Your task to perform on an android device: Add acer predator to the cart on costco Image 0: 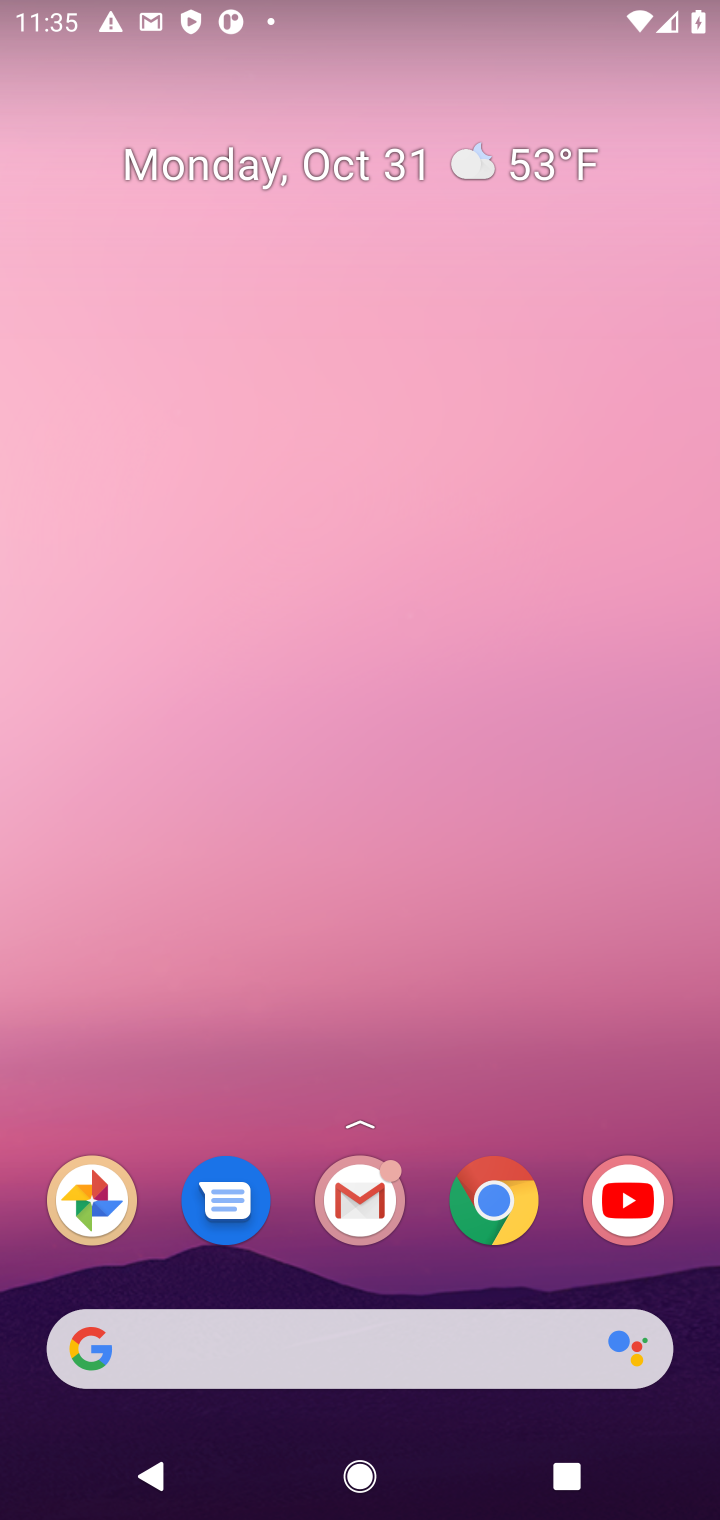
Step 0: click (482, 1217)
Your task to perform on an android device: Add acer predator to the cart on costco Image 1: 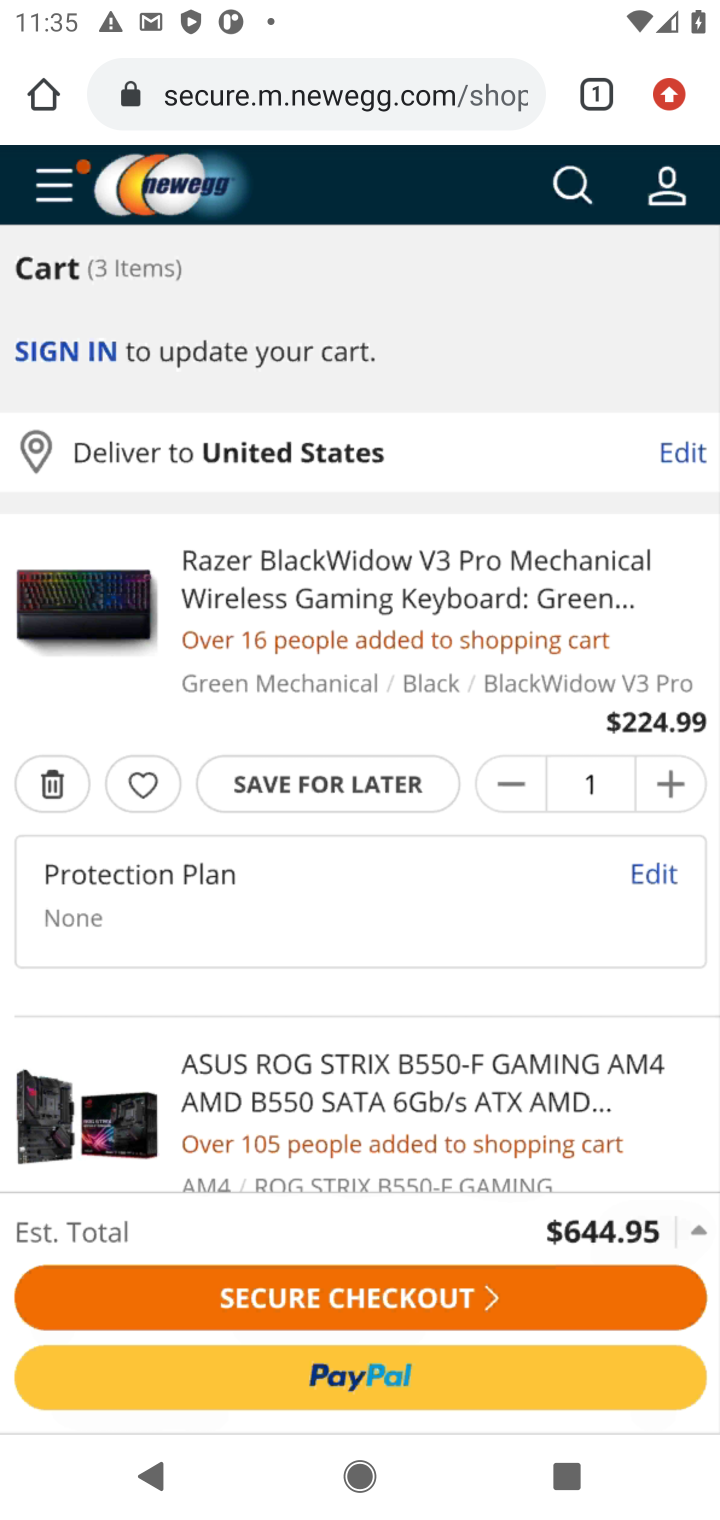
Step 1: click (291, 105)
Your task to perform on an android device: Add acer predator to the cart on costco Image 2: 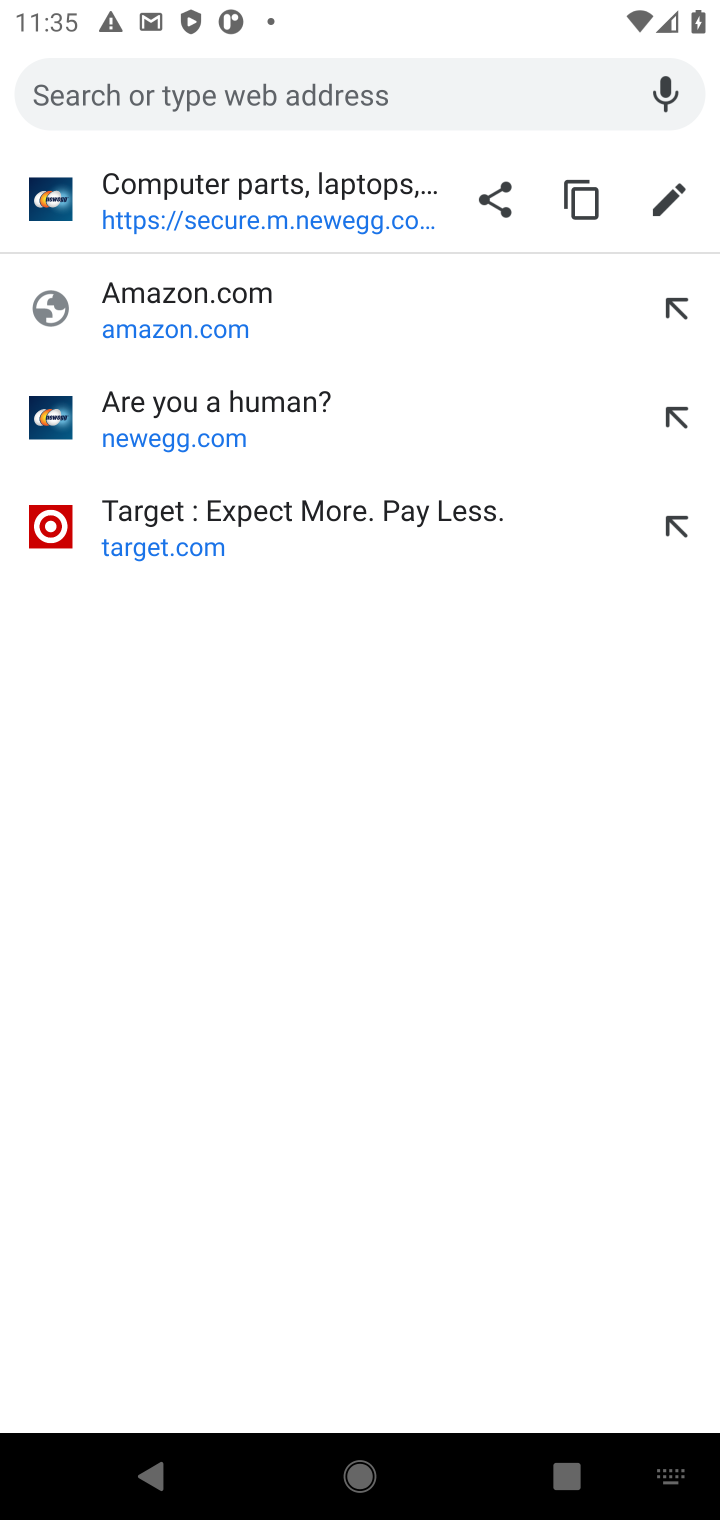
Step 2: type "costco"
Your task to perform on an android device: Add acer predator to the cart on costco Image 3: 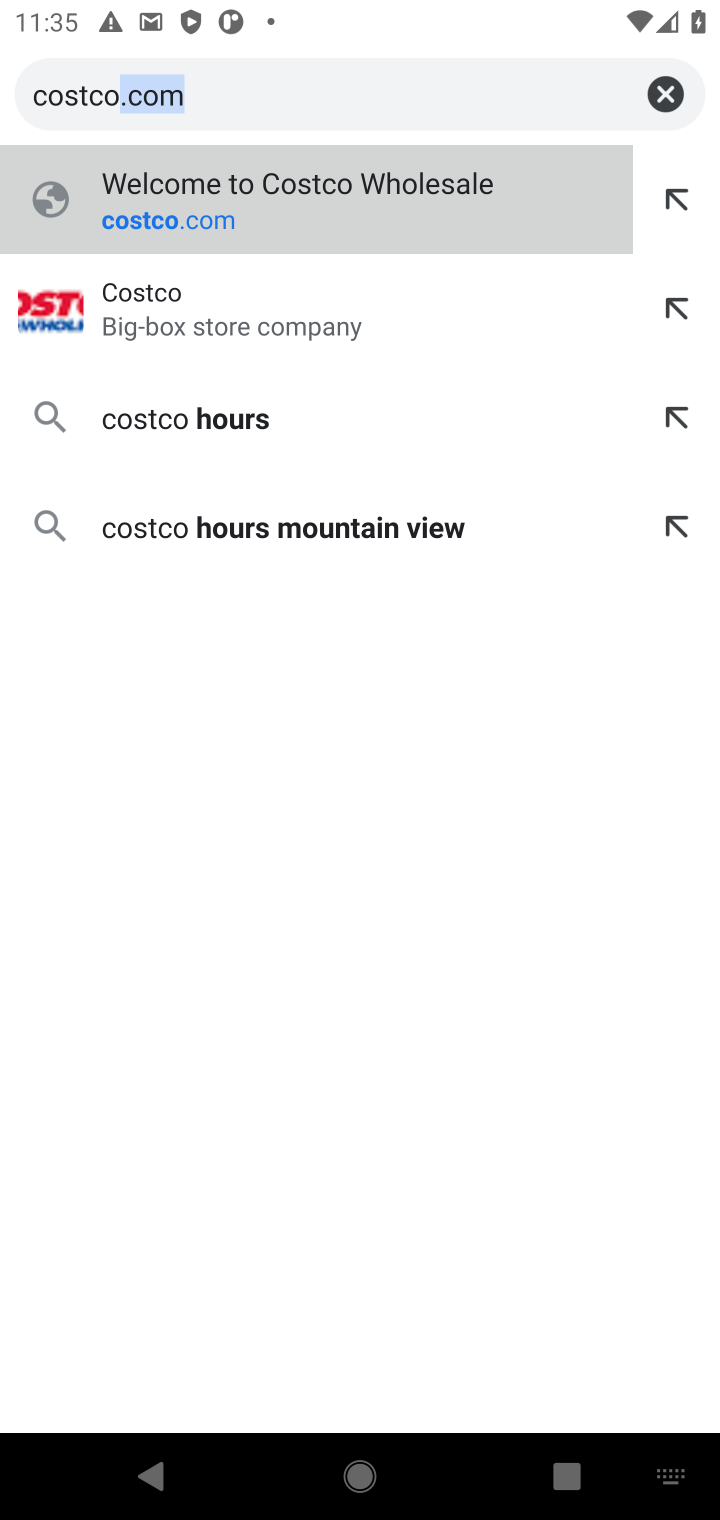
Step 3: click (418, 212)
Your task to perform on an android device: Add acer predator to the cart on costco Image 4: 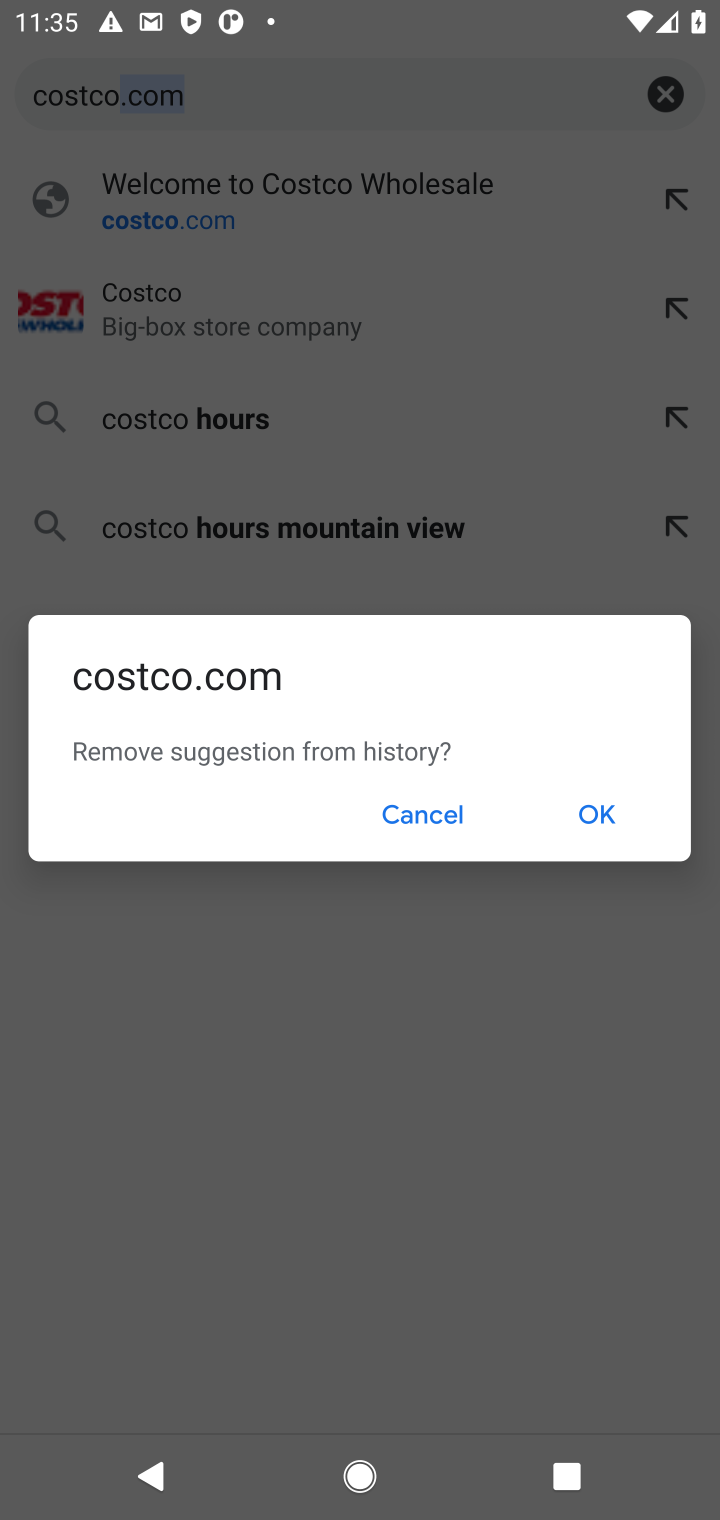
Step 4: click (444, 821)
Your task to perform on an android device: Add acer predator to the cart on costco Image 5: 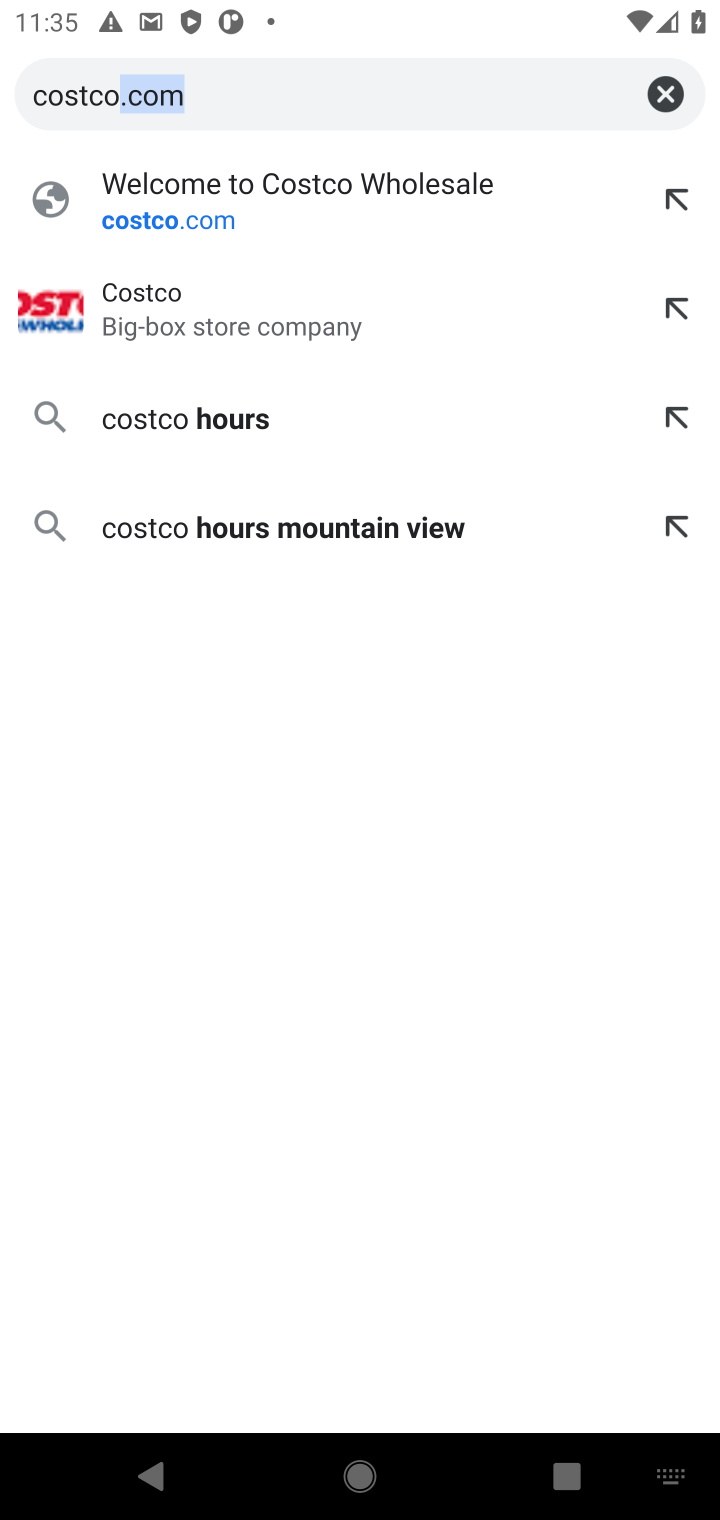
Step 5: click (333, 233)
Your task to perform on an android device: Add acer predator to the cart on costco Image 6: 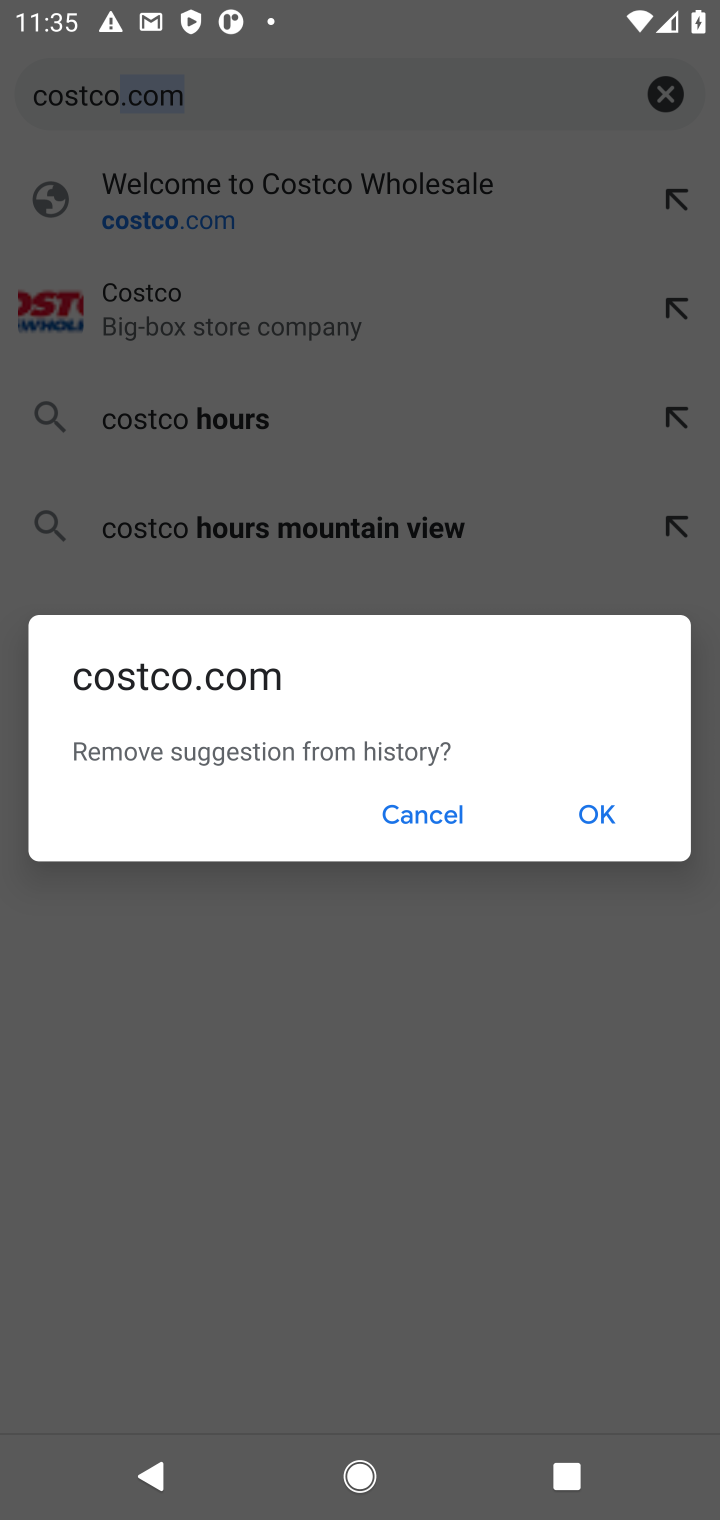
Step 6: click (579, 812)
Your task to perform on an android device: Add acer predator to the cart on costco Image 7: 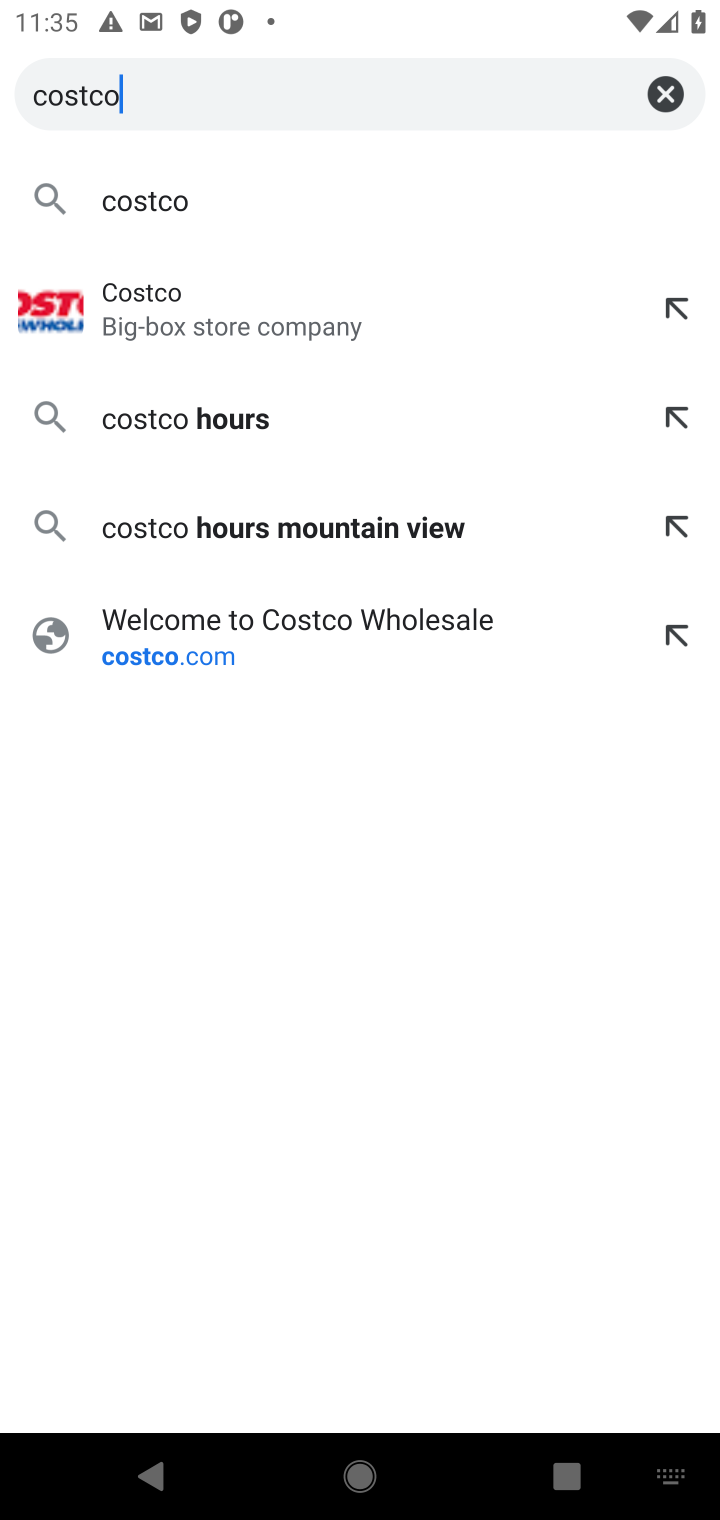
Step 7: click (229, 337)
Your task to perform on an android device: Add acer predator to the cart on costco Image 8: 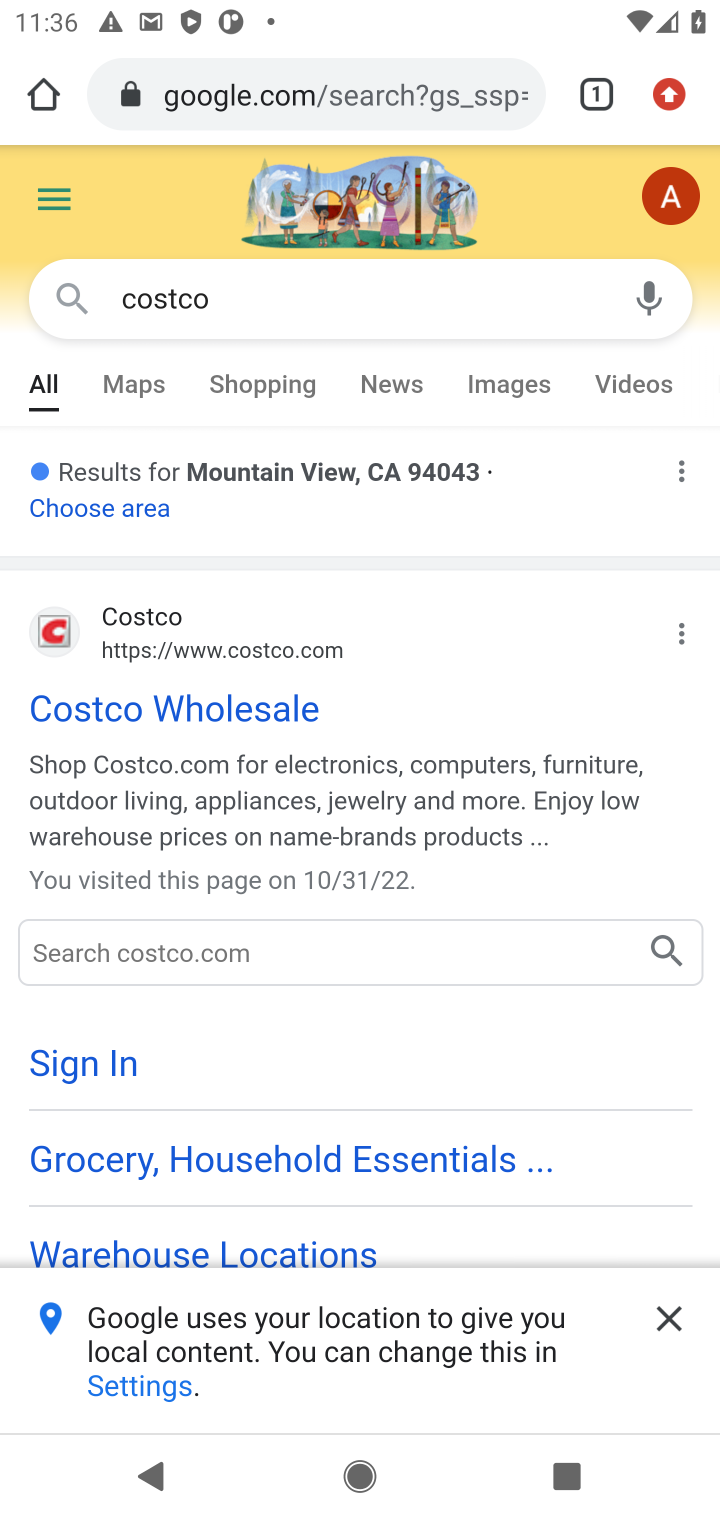
Step 8: click (194, 677)
Your task to perform on an android device: Add acer predator to the cart on costco Image 9: 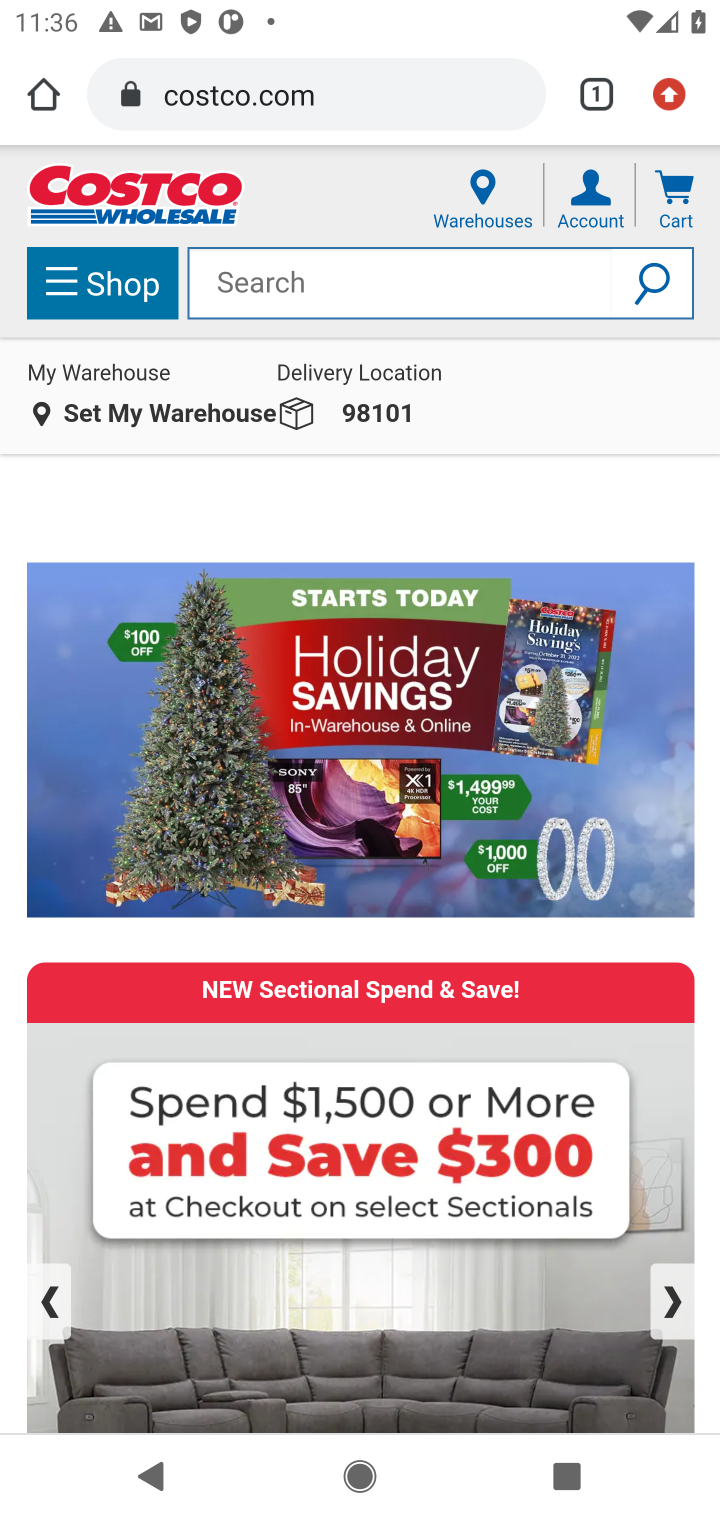
Step 9: click (428, 300)
Your task to perform on an android device: Add acer predator to the cart on costco Image 10: 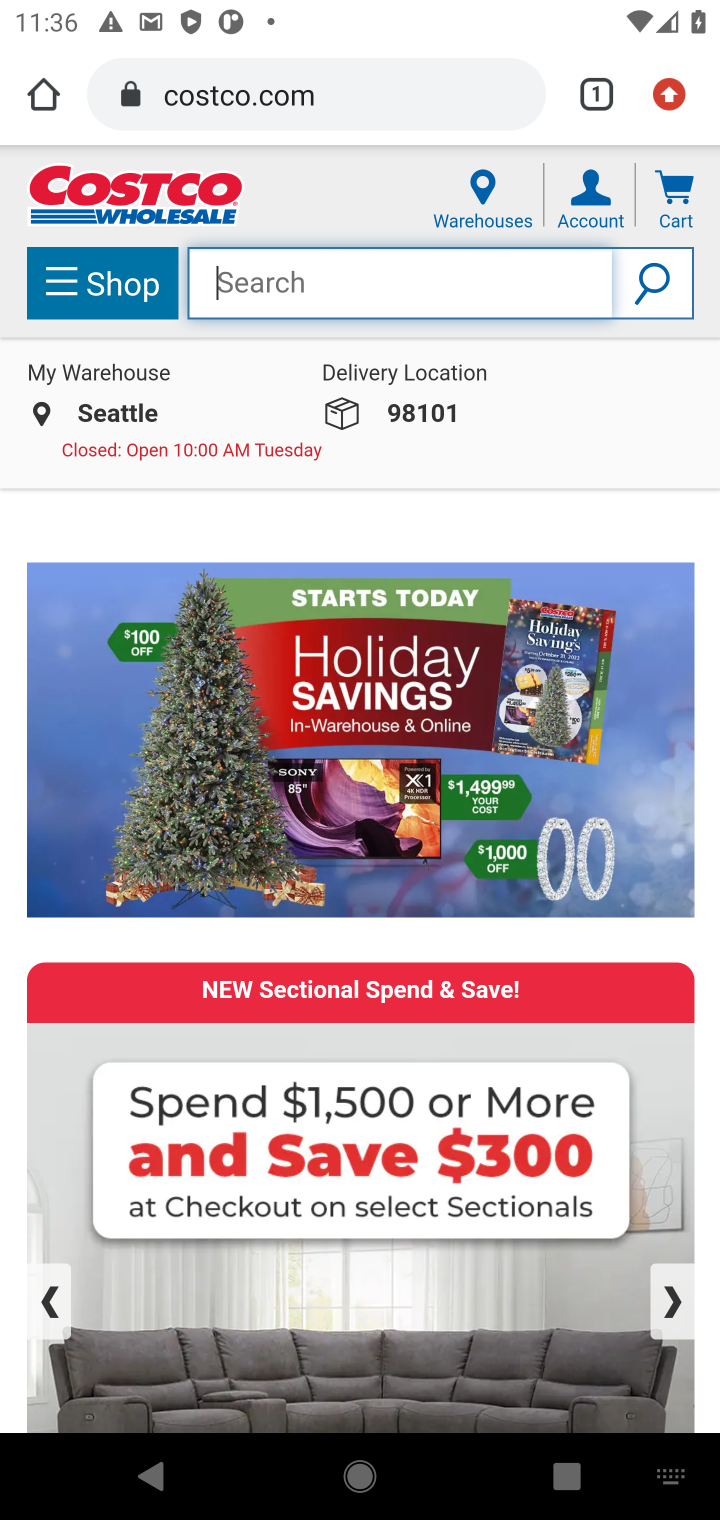
Step 10: type "acer predator"
Your task to perform on an android device: Add acer predator to the cart on costco Image 11: 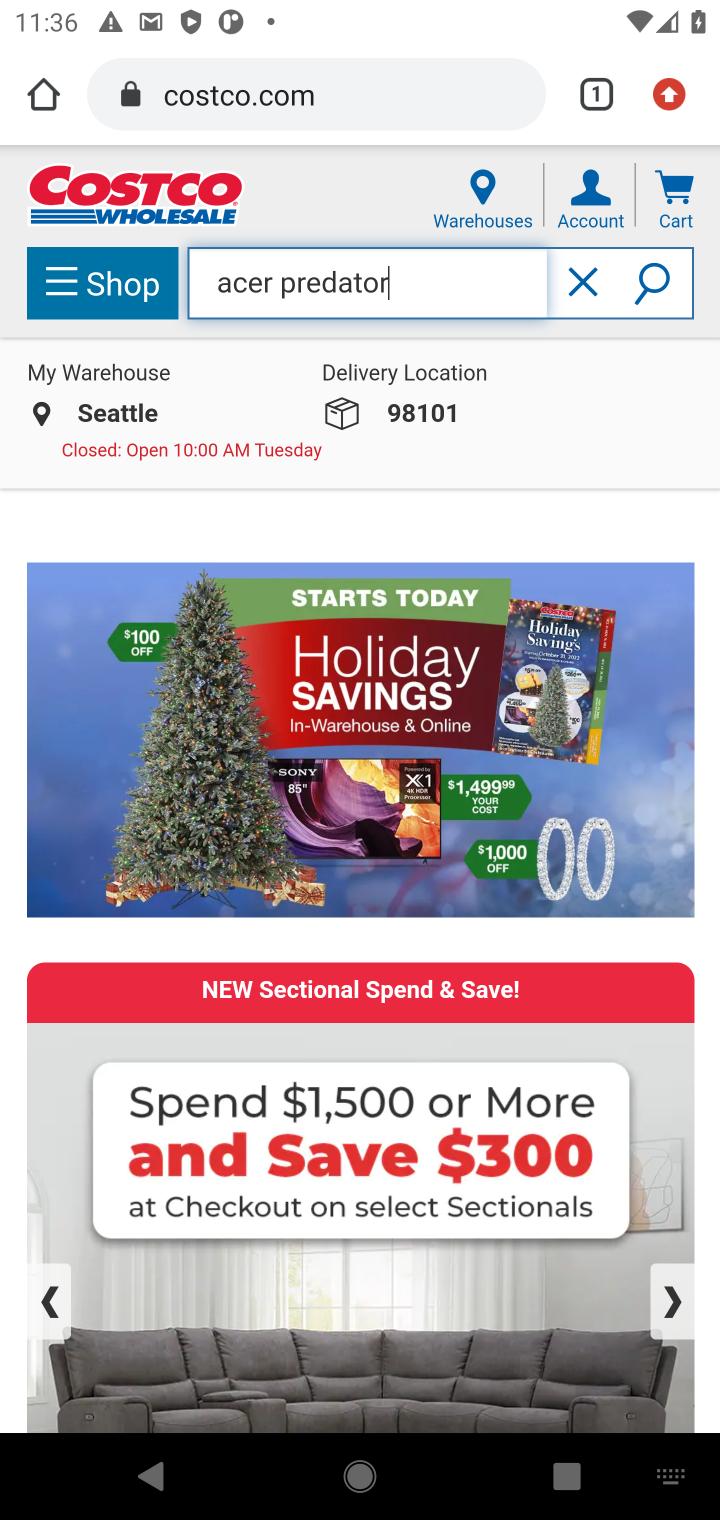
Step 11: type ""
Your task to perform on an android device: Add acer predator to the cart on costco Image 12: 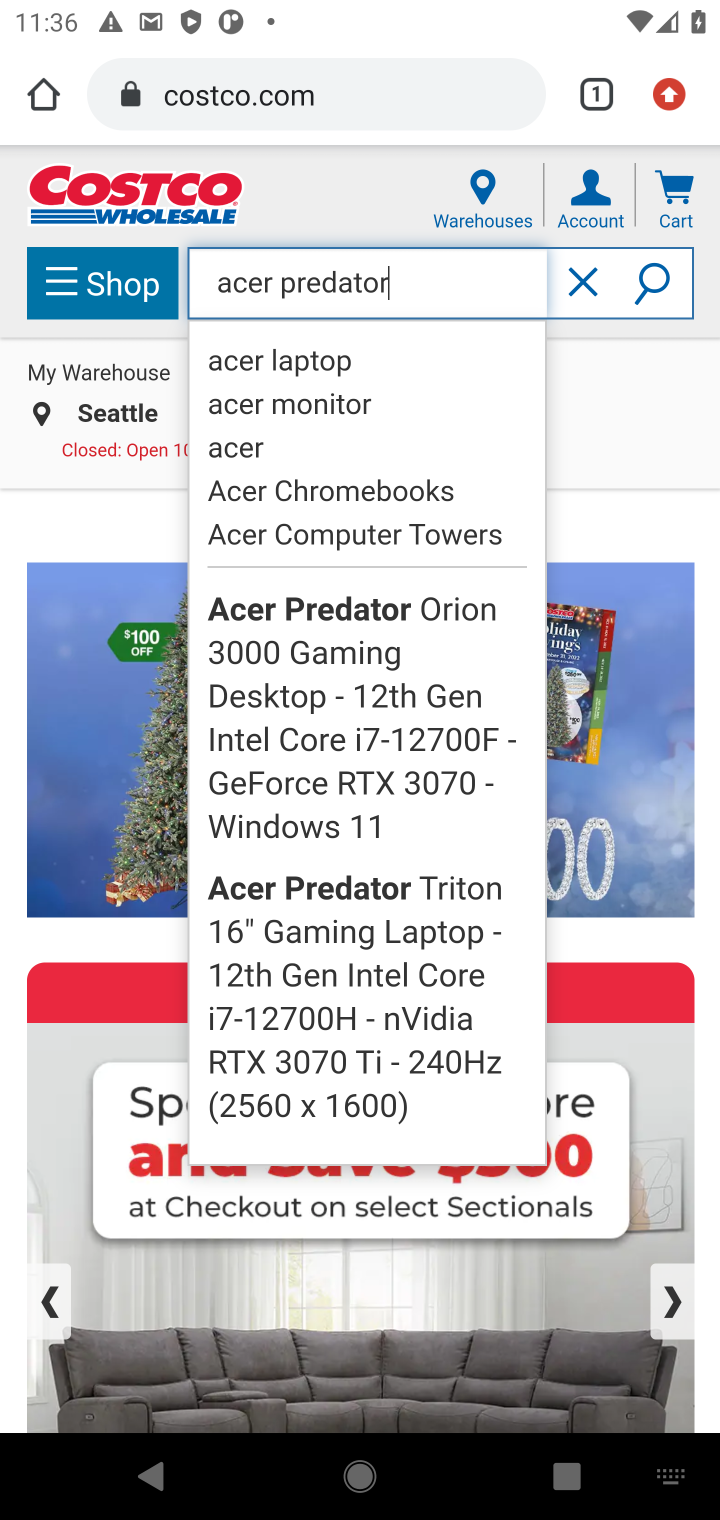
Step 12: press enter
Your task to perform on an android device: Add acer predator to the cart on costco Image 13: 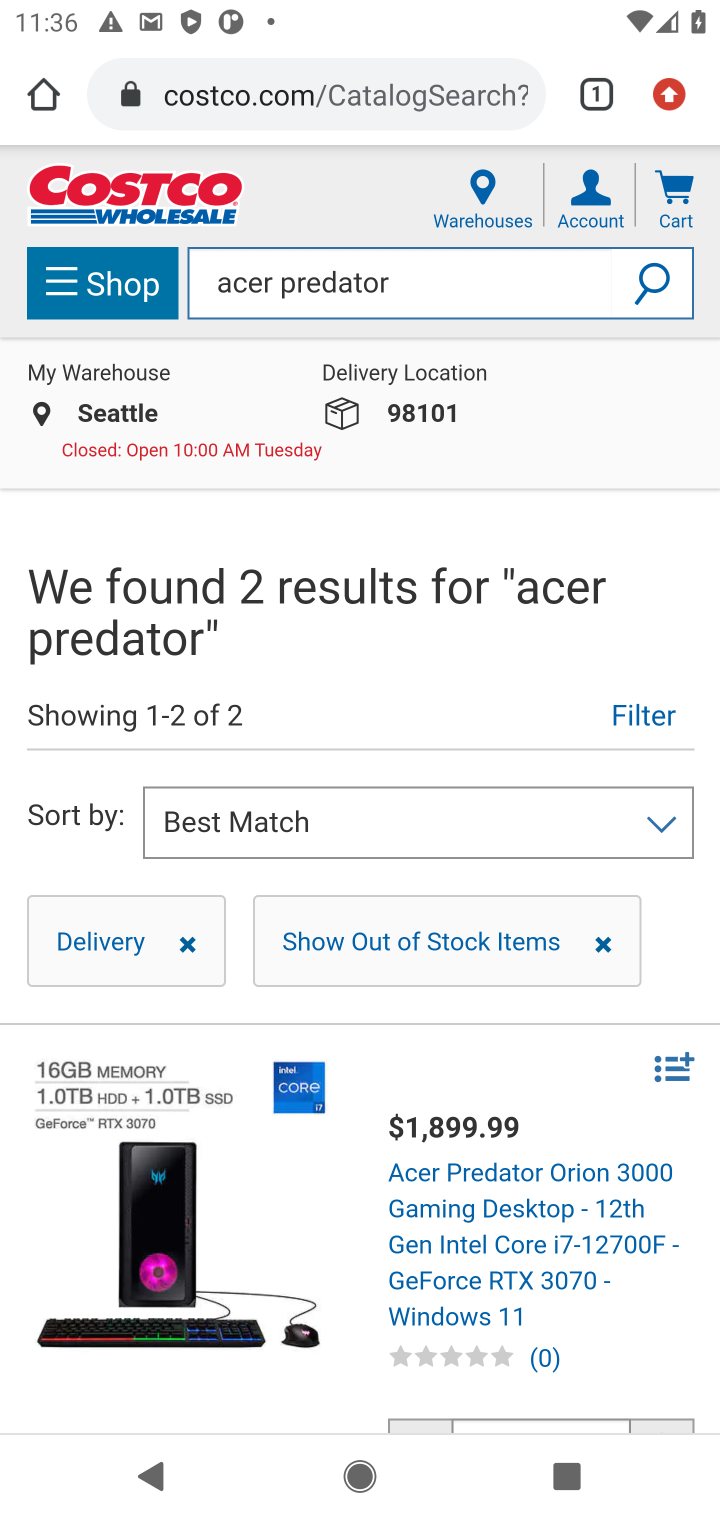
Step 13: click (527, 1180)
Your task to perform on an android device: Add acer predator to the cart on costco Image 14: 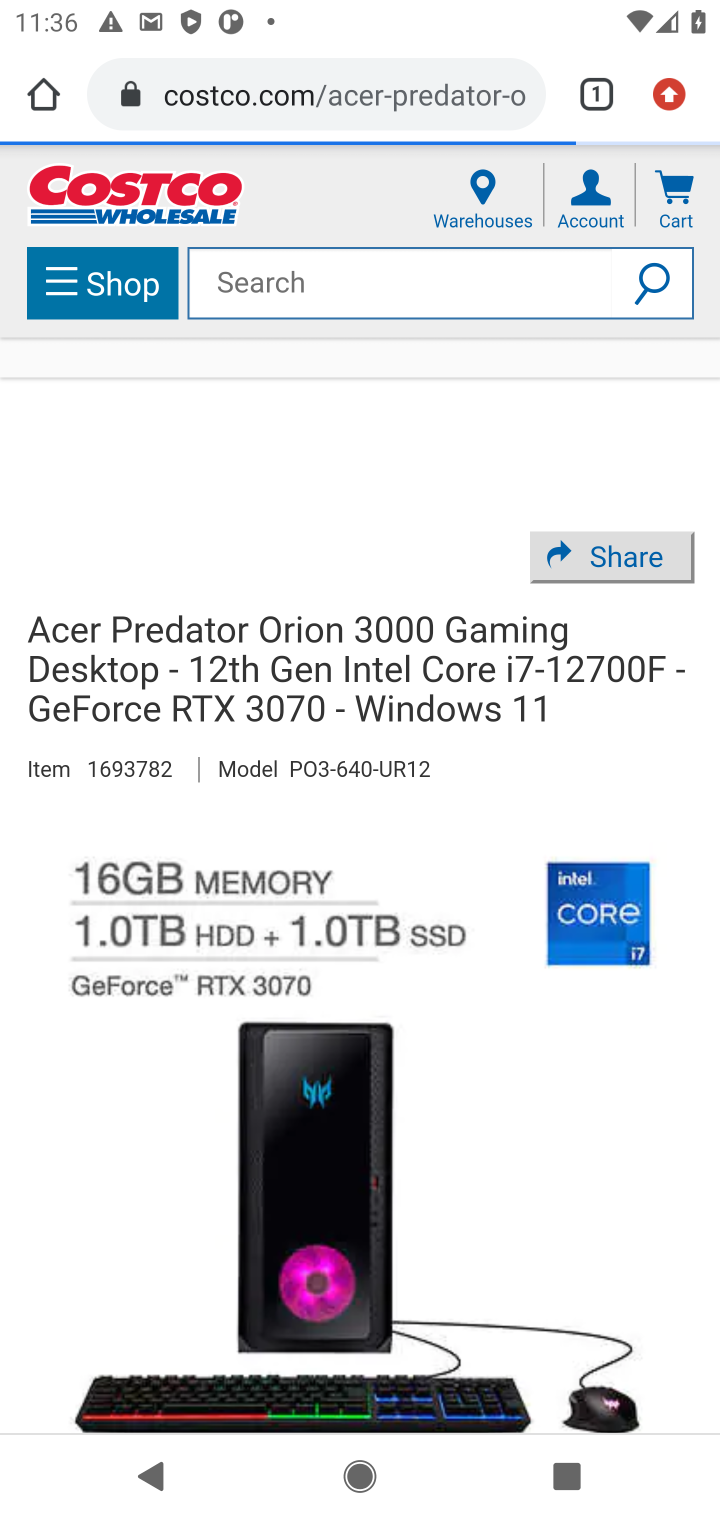
Step 14: drag from (531, 1267) to (555, 458)
Your task to perform on an android device: Add acer predator to the cart on costco Image 15: 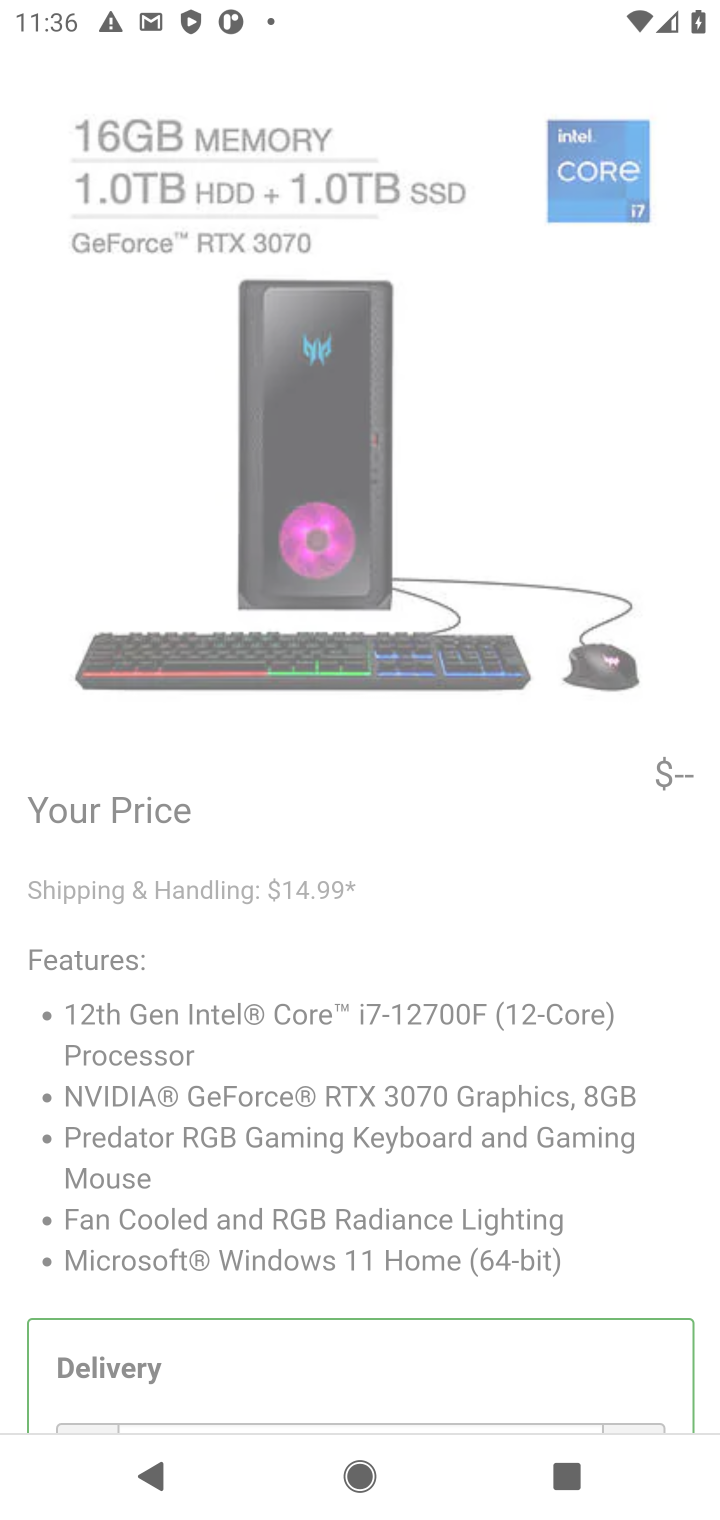
Step 15: drag from (405, 1060) to (487, 381)
Your task to perform on an android device: Add acer predator to the cart on costco Image 16: 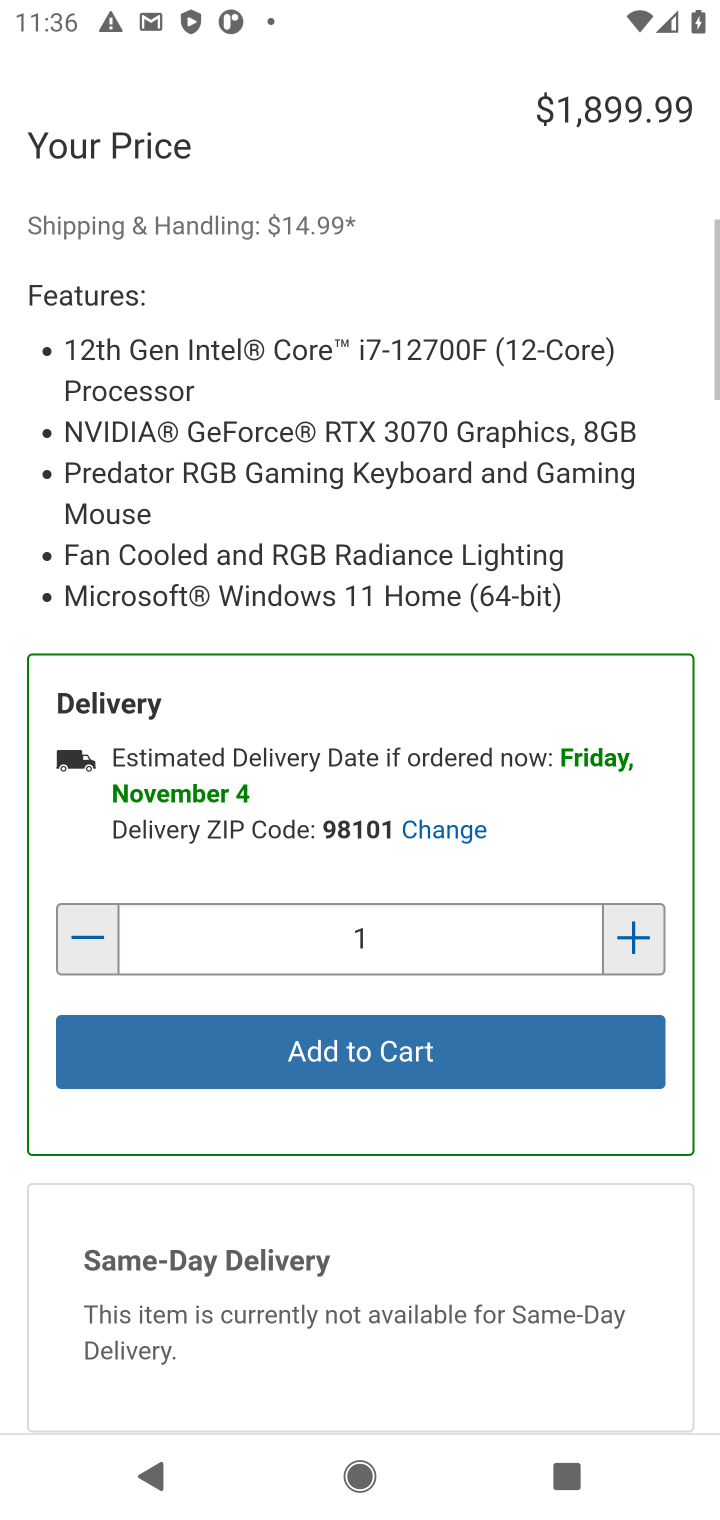
Step 16: click (411, 1179)
Your task to perform on an android device: Add acer predator to the cart on costco Image 17: 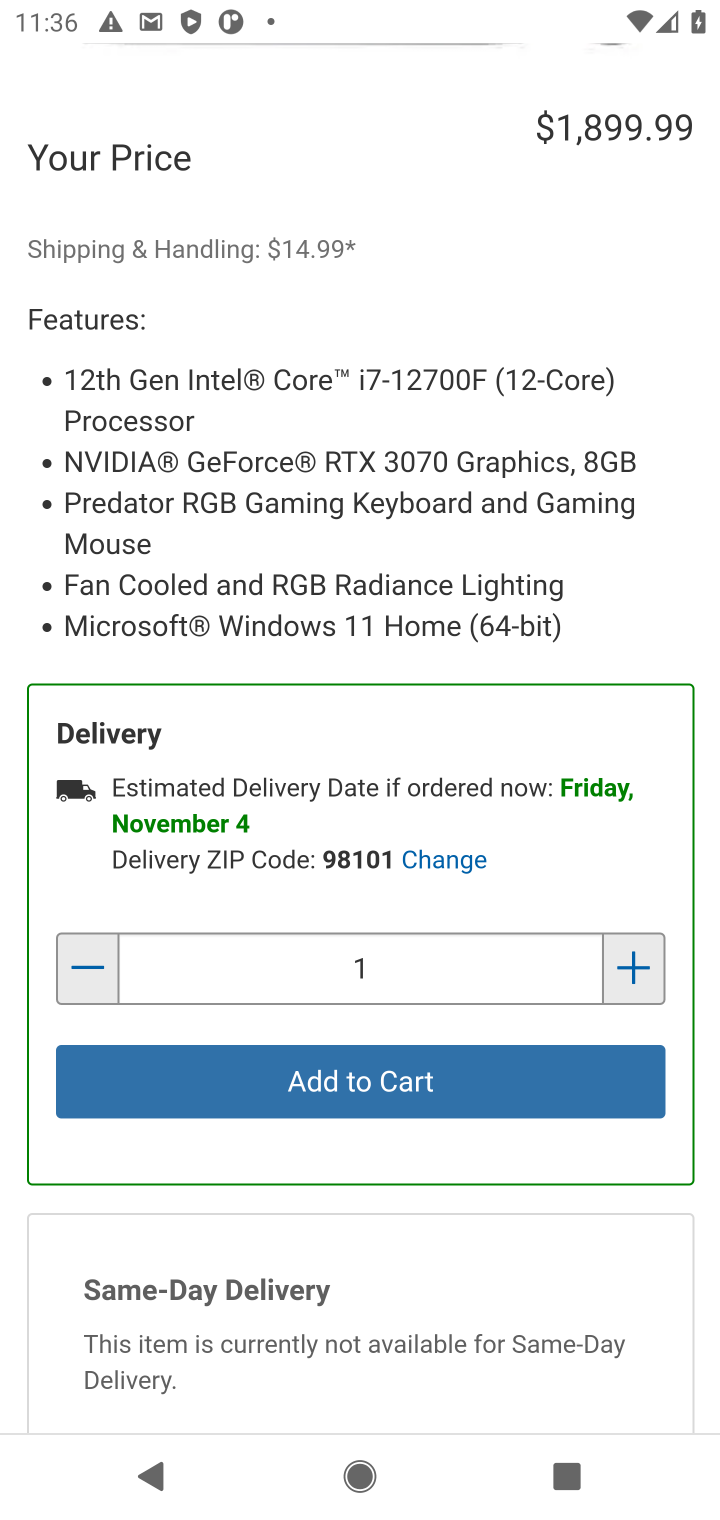
Step 17: click (410, 1031)
Your task to perform on an android device: Add acer predator to the cart on costco Image 18: 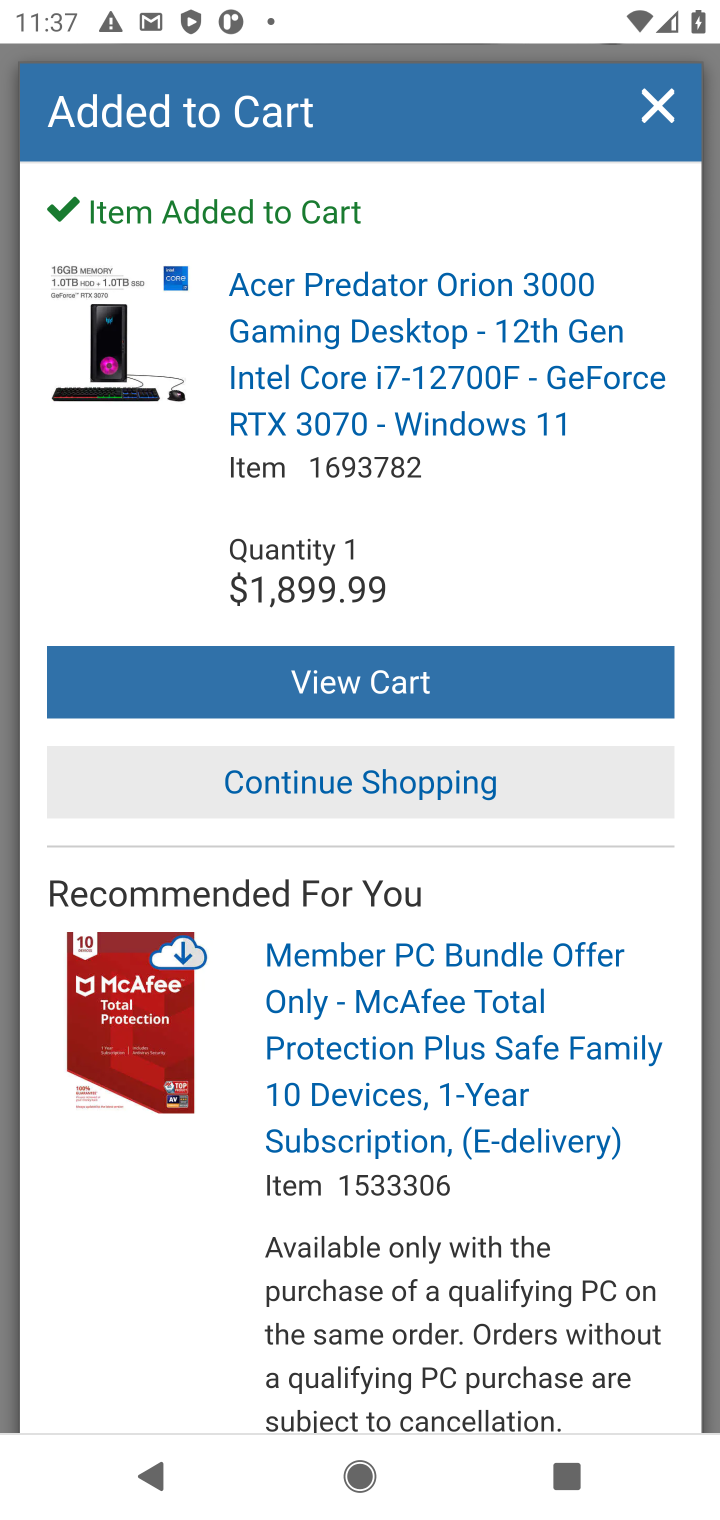
Step 18: click (438, 687)
Your task to perform on an android device: Add acer predator to the cart on costco Image 19: 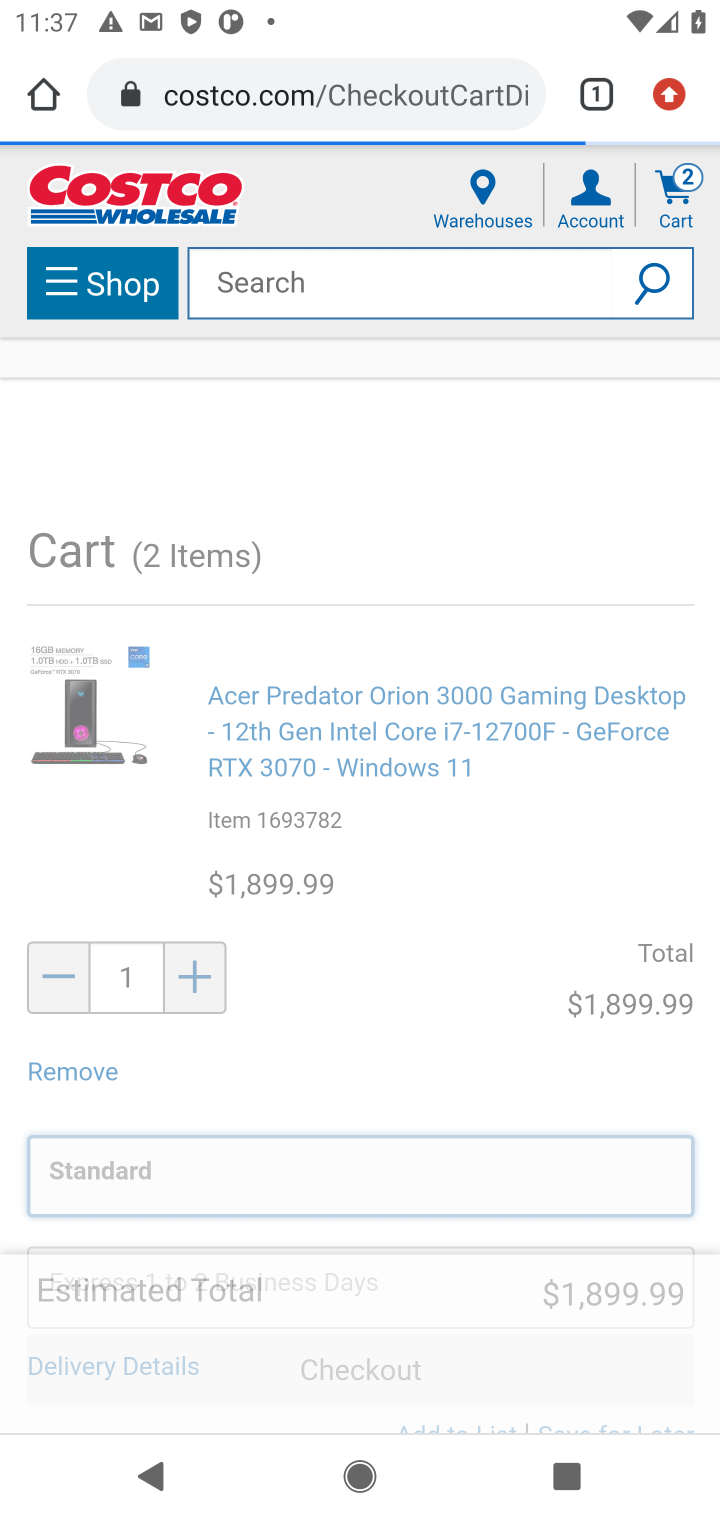
Step 19: drag from (526, 981) to (569, 723)
Your task to perform on an android device: Add acer predator to the cart on costco Image 20: 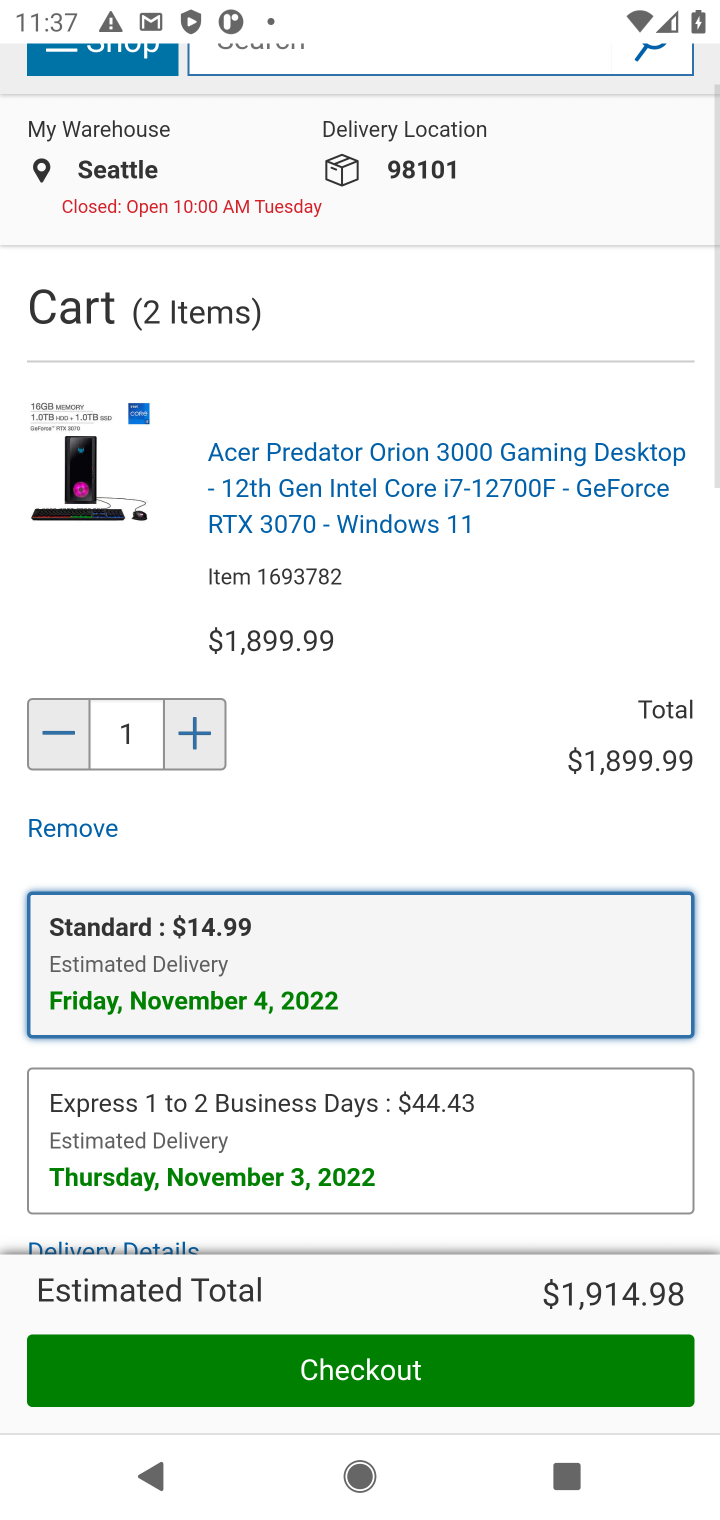
Step 20: click (411, 1366)
Your task to perform on an android device: Add acer predator to the cart on costco Image 21: 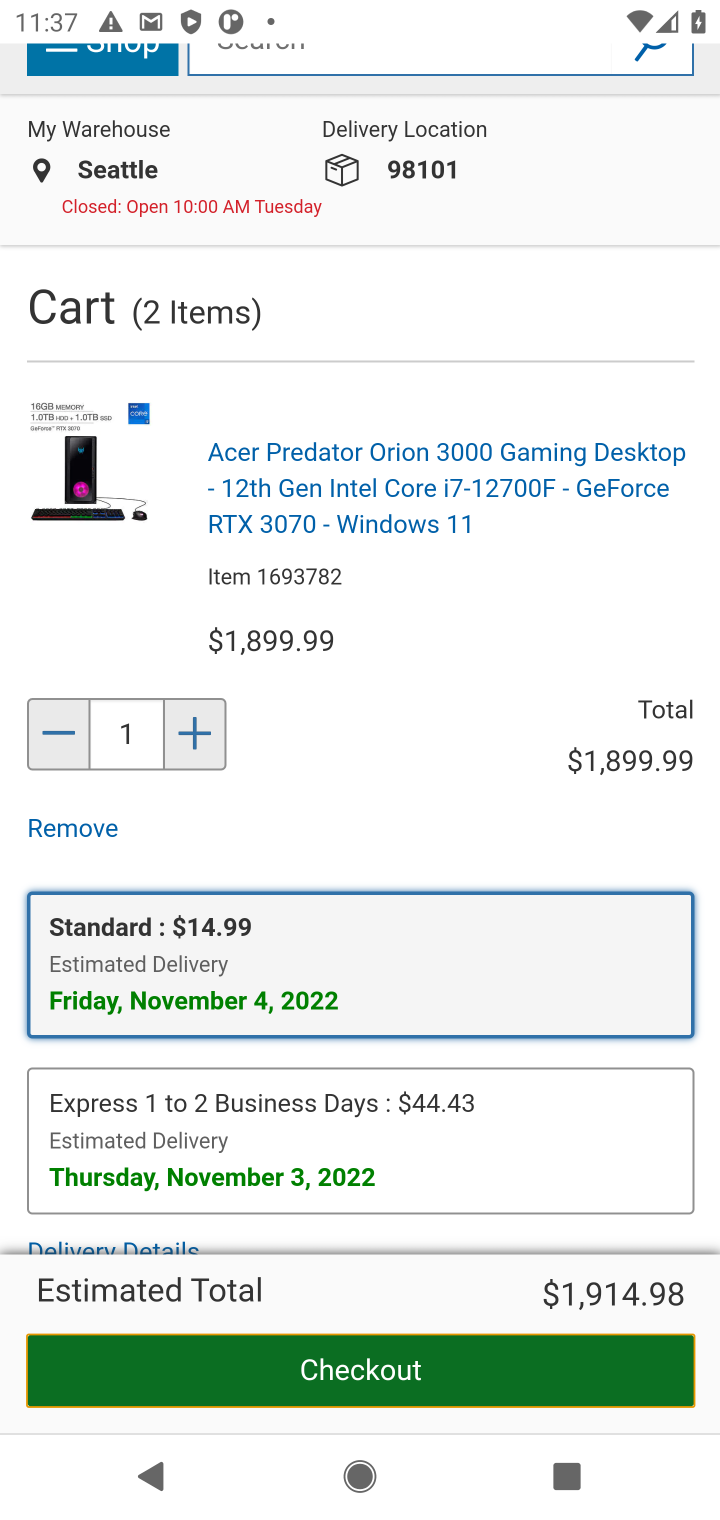
Step 21: click (411, 1366)
Your task to perform on an android device: Add acer predator to the cart on costco Image 22: 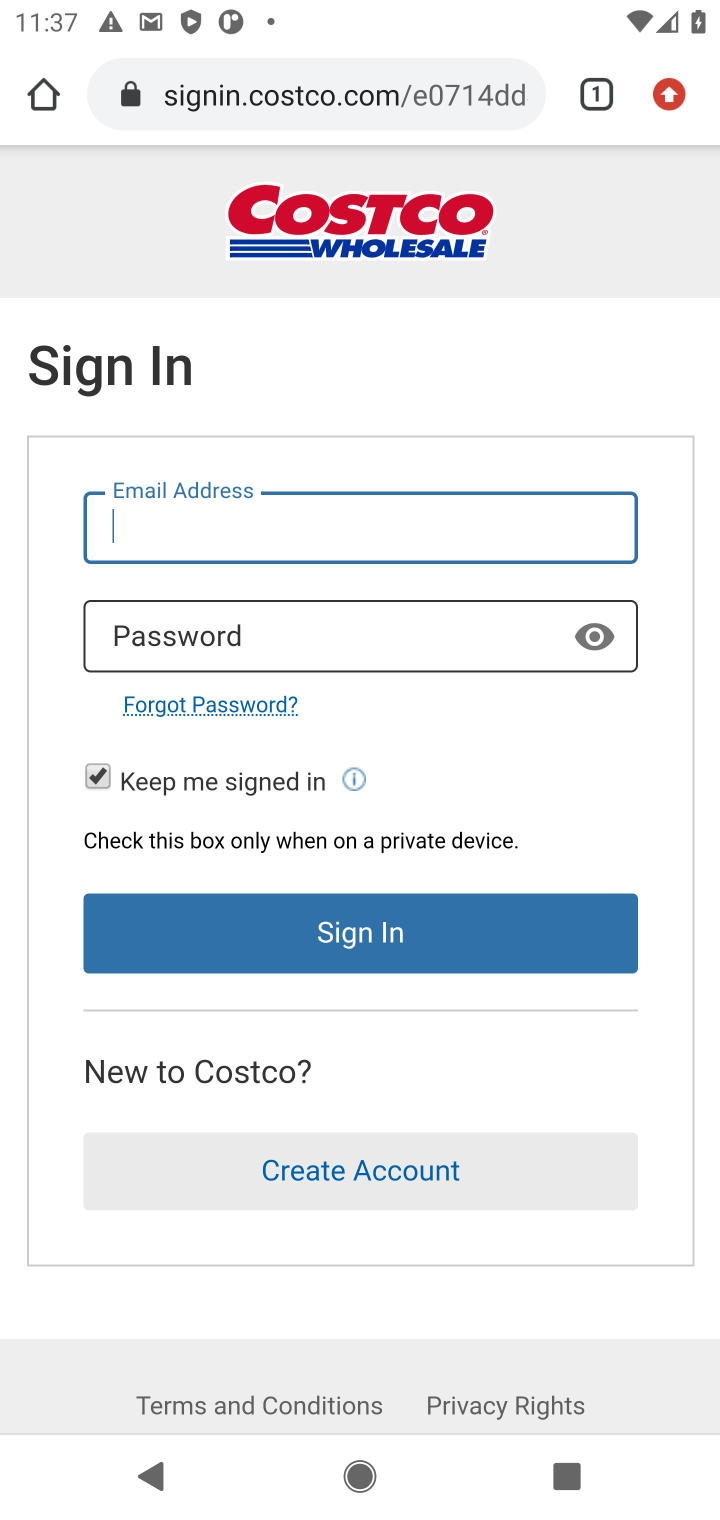
Step 22: task complete